Your task to perform on an android device: add a label to a message in the gmail app Image 0: 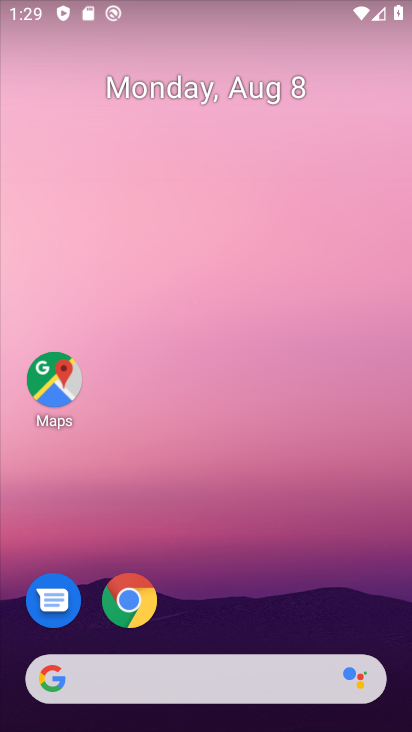
Step 0: press home button
Your task to perform on an android device: add a label to a message in the gmail app Image 1: 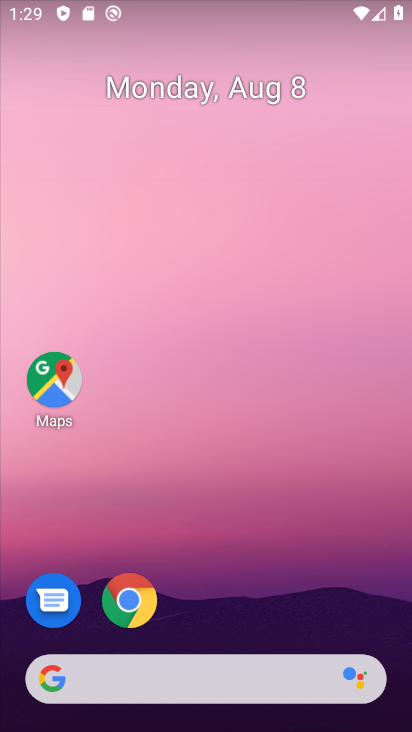
Step 1: drag from (333, 556) to (282, 1)
Your task to perform on an android device: add a label to a message in the gmail app Image 2: 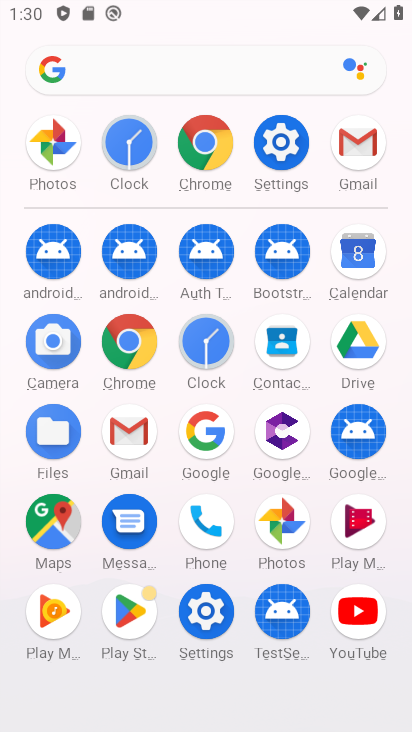
Step 2: click (134, 447)
Your task to perform on an android device: add a label to a message in the gmail app Image 3: 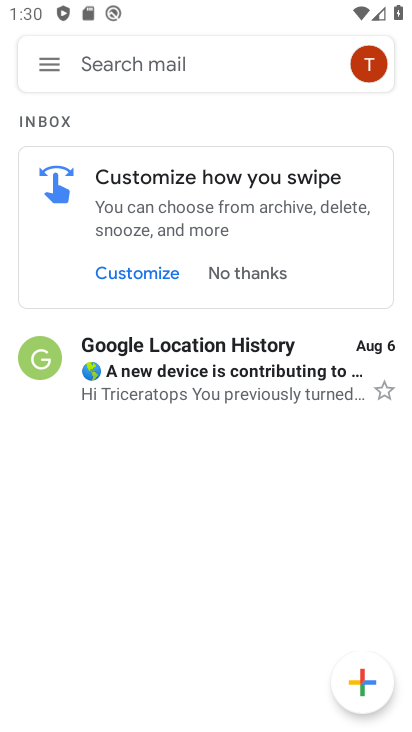
Step 3: click (326, 381)
Your task to perform on an android device: add a label to a message in the gmail app Image 4: 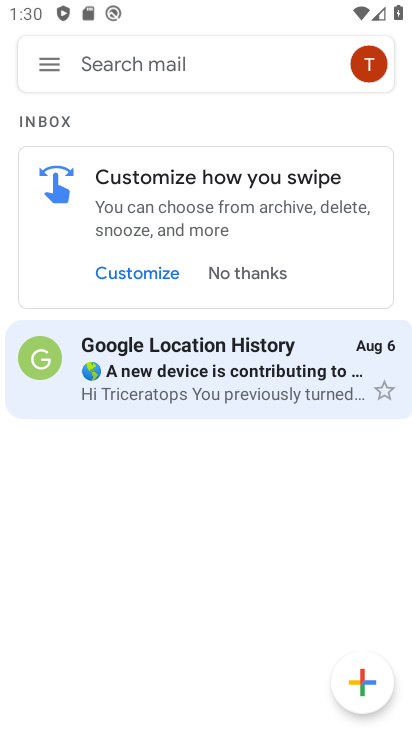
Step 4: click (326, 381)
Your task to perform on an android device: add a label to a message in the gmail app Image 5: 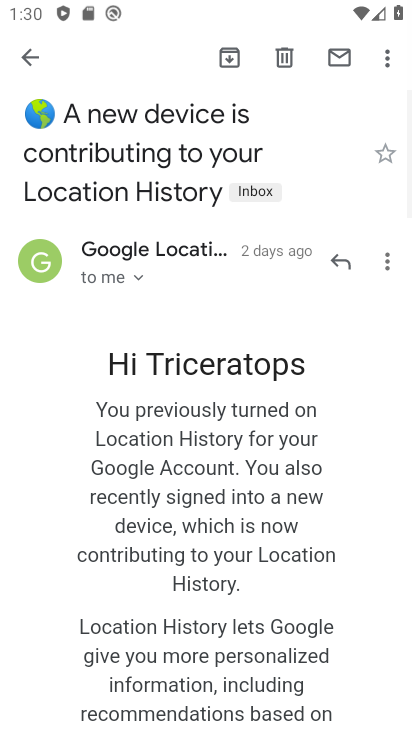
Step 5: click (386, 58)
Your task to perform on an android device: add a label to a message in the gmail app Image 6: 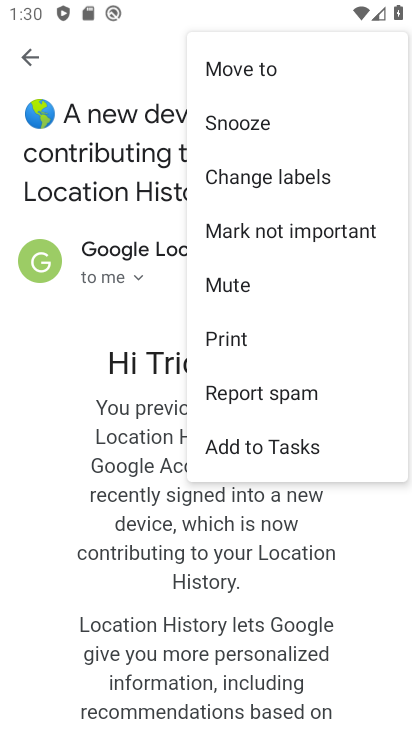
Step 6: click (36, 298)
Your task to perform on an android device: add a label to a message in the gmail app Image 7: 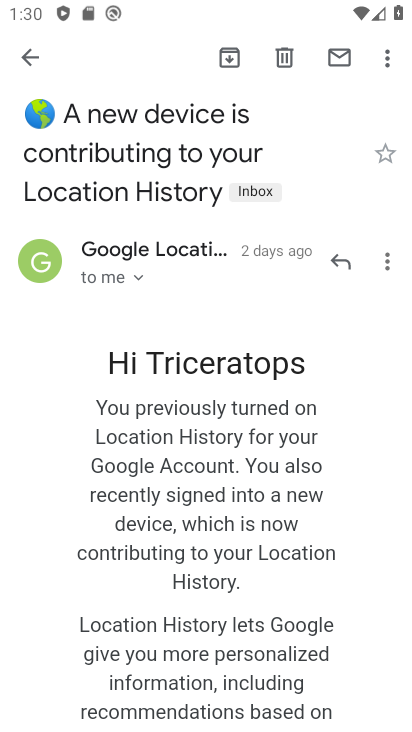
Step 7: task complete